Your task to perform on an android device: turn off notifications settings in the gmail app Image 0: 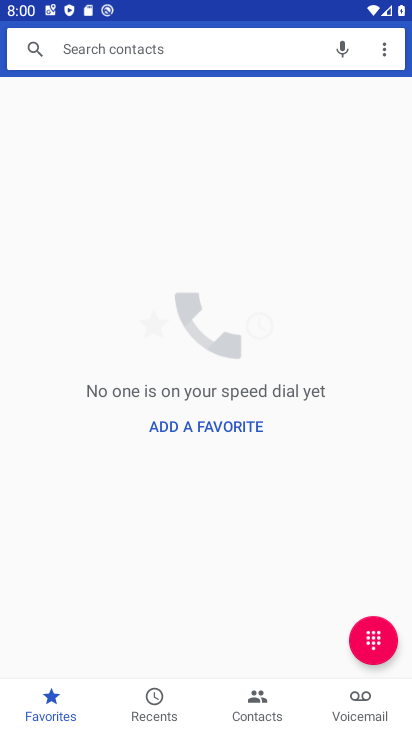
Step 0: press back button
Your task to perform on an android device: turn off notifications settings in the gmail app Image 1: 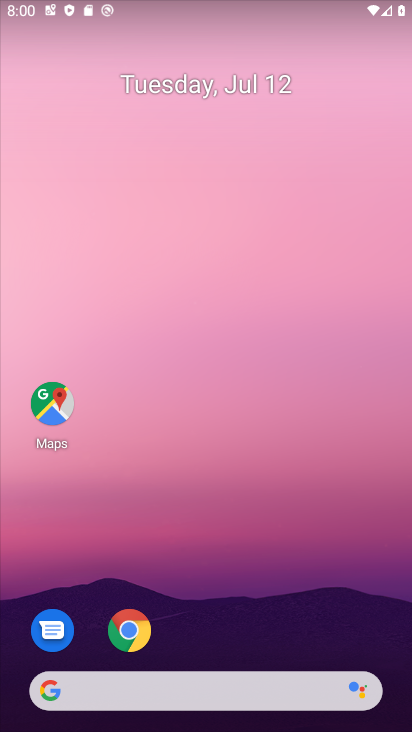
Step 1: drag from (246, 593) to (349, 2)
Your task to perform on an android device: turn off notifications settings in the gmail app Image 2: 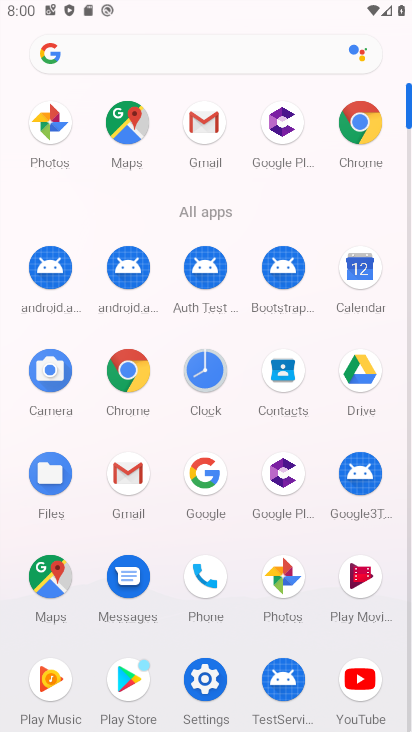
Step 2: click (216, 125)
Your task to perform on an android device: turn off notifications settings in the gmail app Image 3: 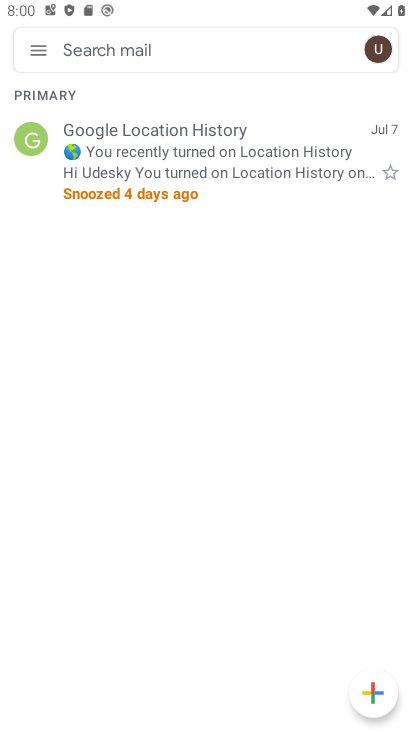
Step 3: click (32, 55)
Your task to perform on an android device: turn off notifications settings in the gmail app Image 4: 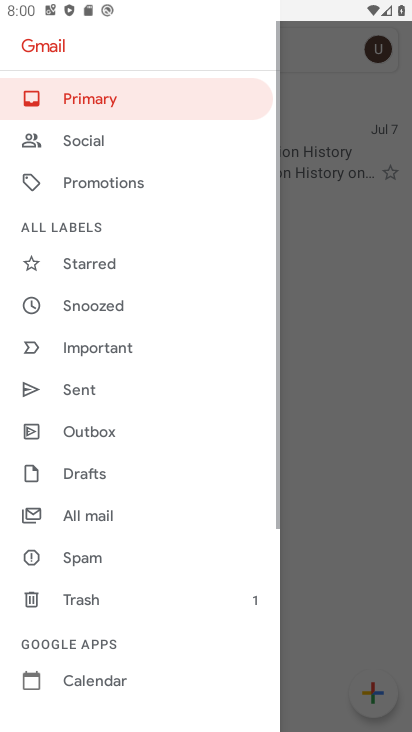
Step 4: drag from (75, 650) to (146, 243)
Your task to perform on an android device: turn off notifications settings in the gmail app Image 5: 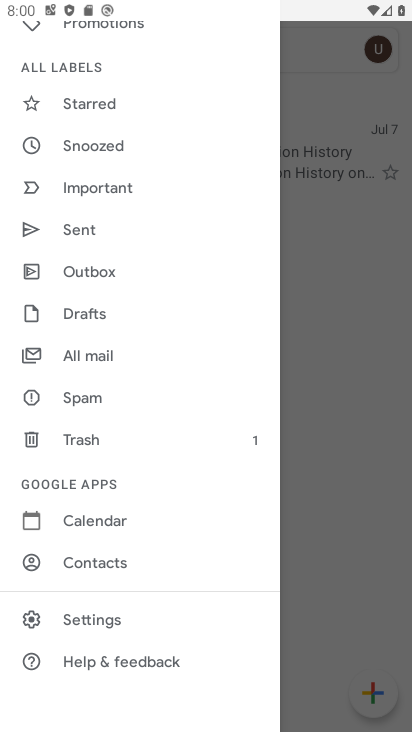
Step 5: click (90, 618)
Your task to perform on an android device: turn off notifications settings in the gmail app Image 6: 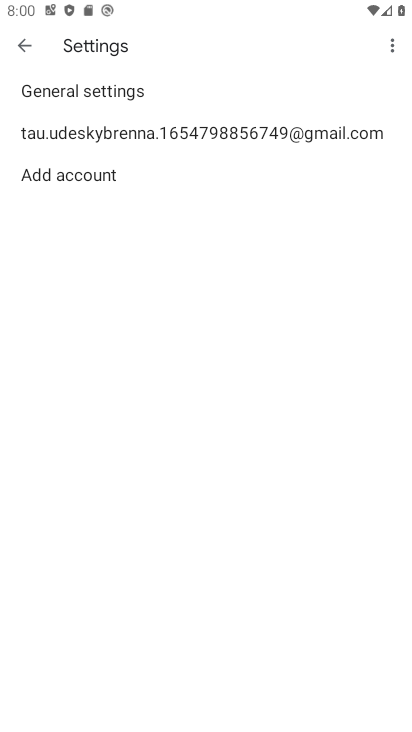
Step 6: click (130, 141)
Your task to perform on an android device: turn off notifications settings in the gmail app Image 7: 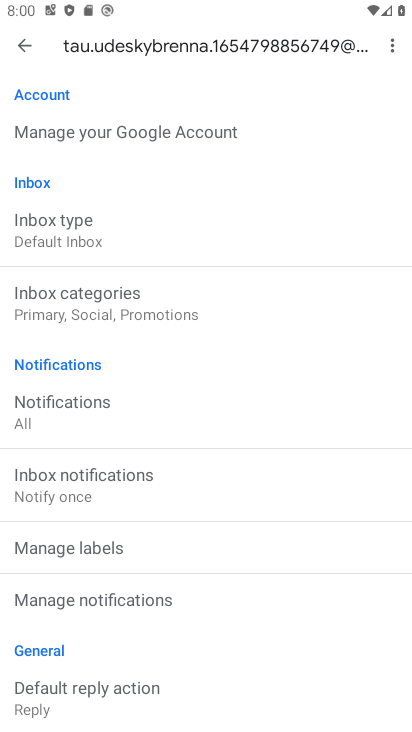
Step 7: click (75, 596)
Your task to perform on an android device: turn off notifications settings in the gmail app Image 8: 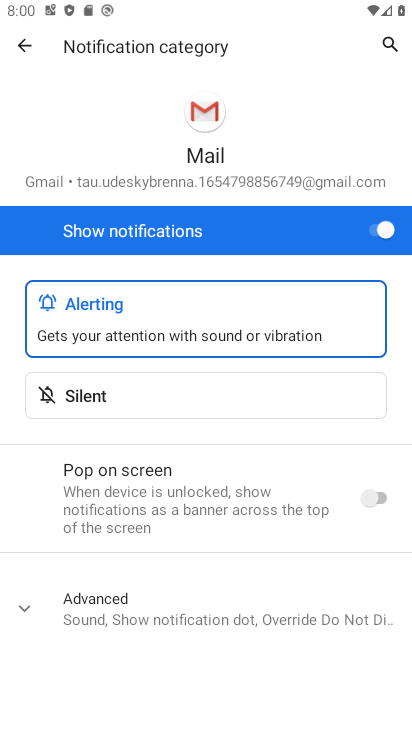
Step 8: click (381, 231)
Your task to perform on an android device: turn off notifications settings in the gmail app Image 9: 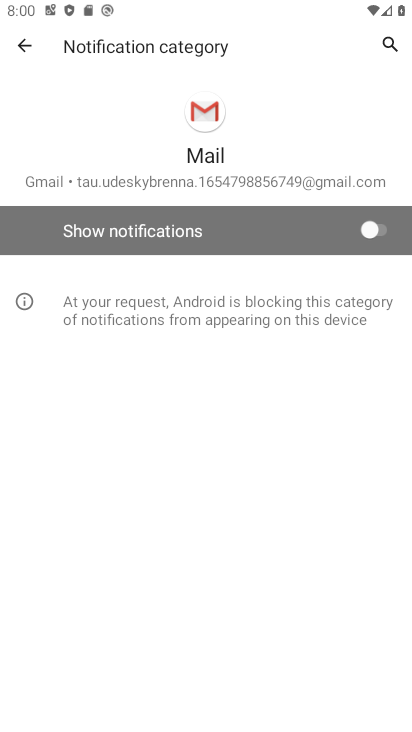
Step 9: task complete